Your task to perform on an android device: Is it going to rain tomorrow? Image 0: 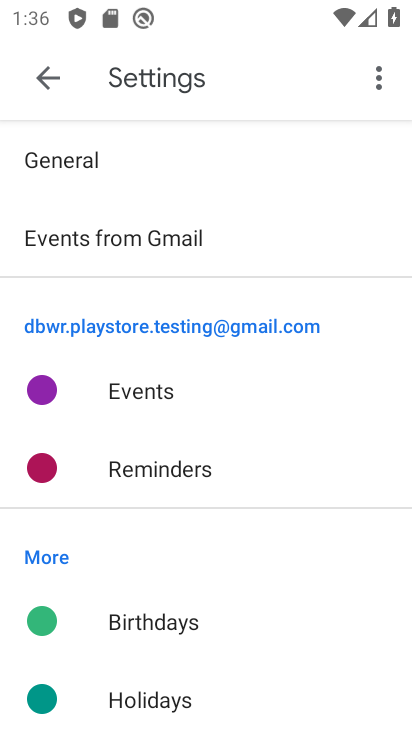
Step 0: press home button
Your task to perform on an android device: Is it going to rain tomorrow? Image 1: 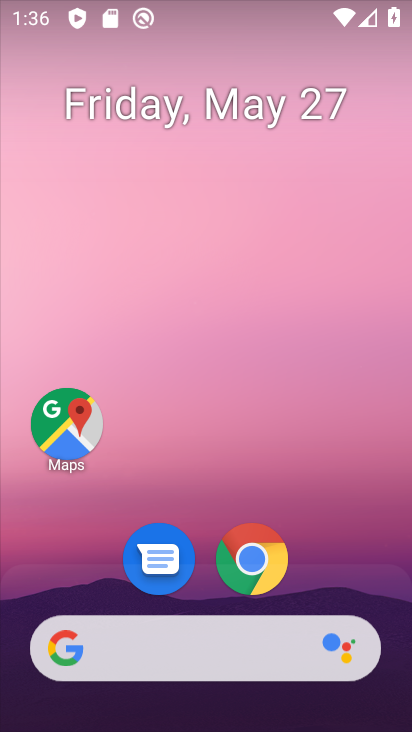
Step 1: drag from (59, 286) to (409, 251)
Your task to perform on an android device: Is it going to rain tomorrow? Image 2: 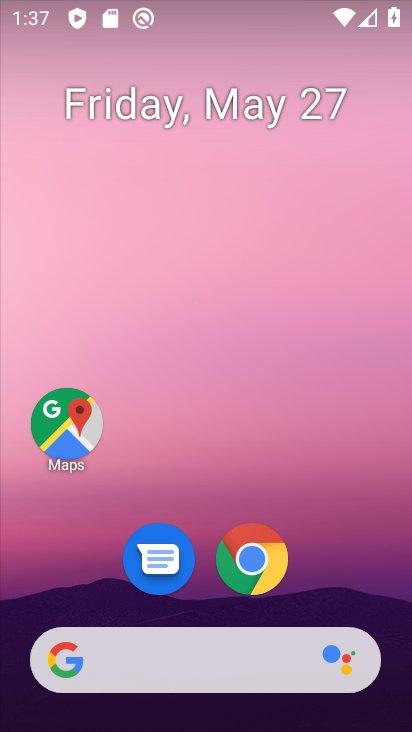
Step 2: click (167, 672)
Your task to perform on an android device: Is it going to rain tomorrow? Image 3: 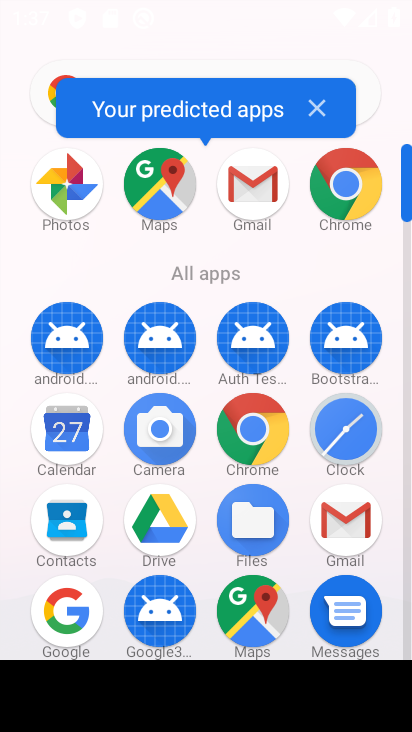
Step 3: click (60, 615)
Your task to perform on an android device: Is it going to rain tomorrow? Image 4: 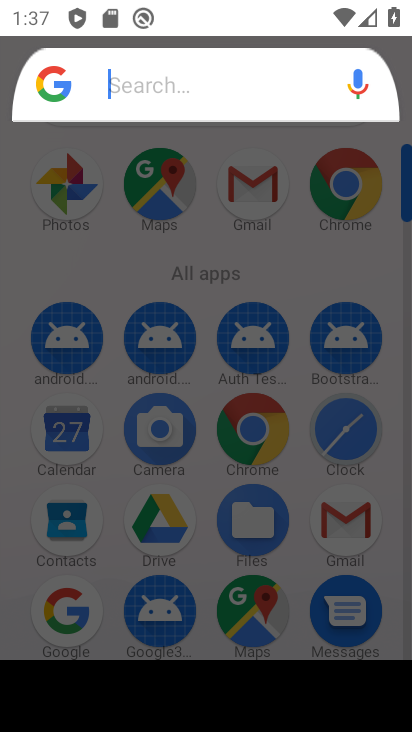
Step 4: click (72, 609)
Your task to perform on an android device: Is it going to rain tomorrow? Image 5: 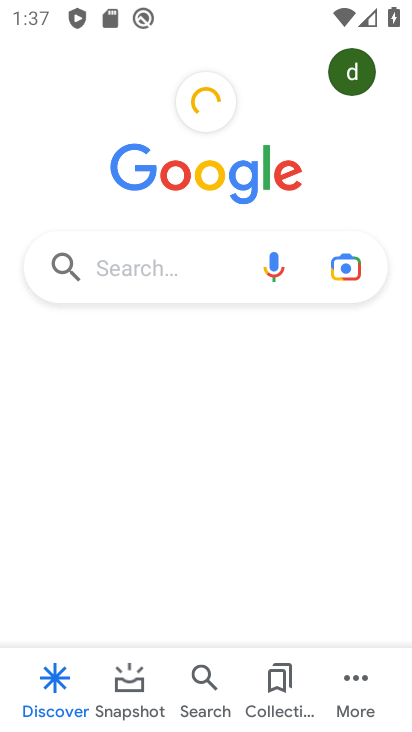
Step 5: click (144, 276)
Your task to perform on an android device: Is it going to rain tomorrow? Image 6: 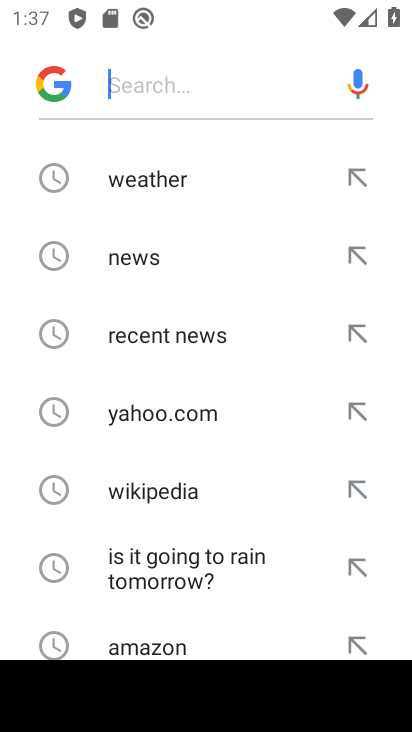
Step 6: click (165, 181)
Your task to perform on an android device: Is it going to rain tomorrow? Image 7: 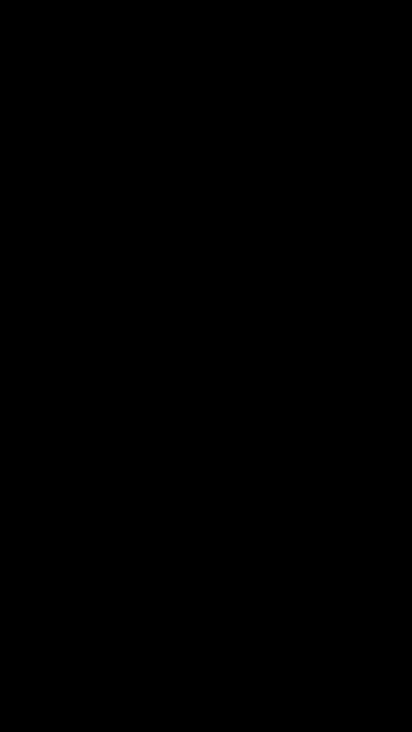
Step 7: drag from (234, 483) to (290, 386)
Your task to perform on an android device: Is it going to rain tomorrow? Image 8: 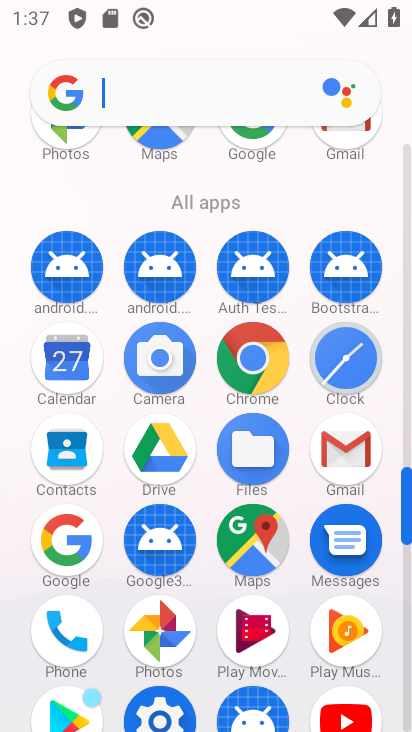
Step 8: click (72, 546)
Your task to perform on an android device: Is it going to rain tomorrow? Image 9: 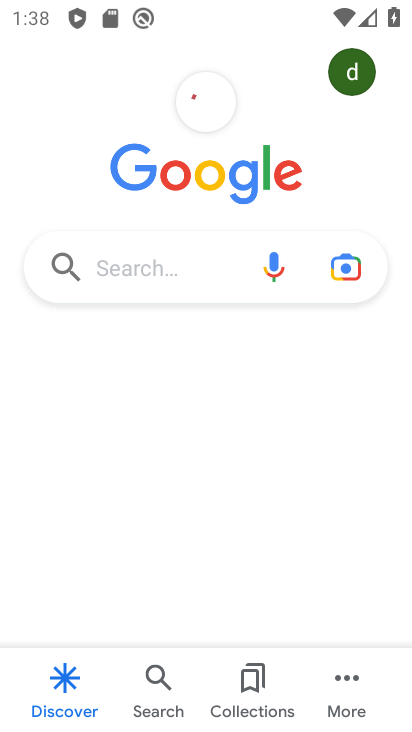
Step 9: click (183, 277)
Your task to perform on an android device: Is it going to rain tomorrow? Image 10: 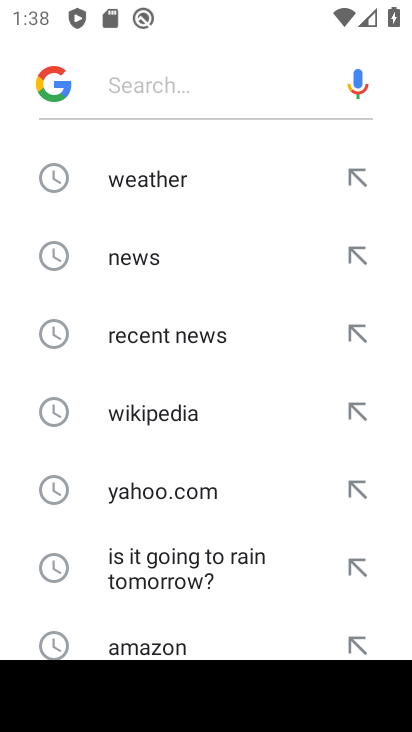
Step 10: click (204, 190)
Your task to perform on an android device: Is it going to rain tomorrow? Image 11: 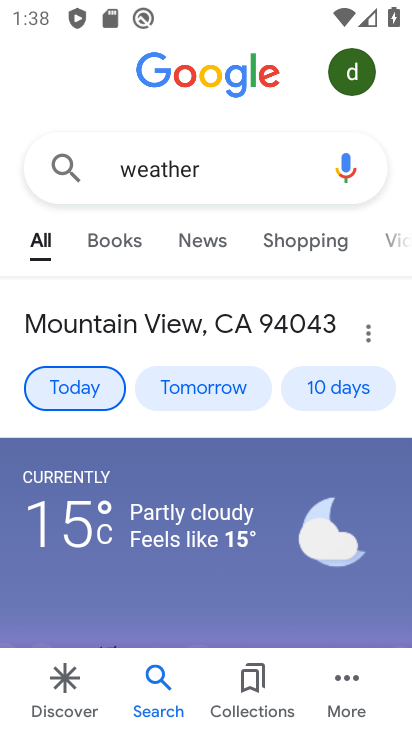
Step 11: drag from (193, 558) to (358, 261)
Your task to perform on an android device: Is it going to rain tomorrow? Image 12: 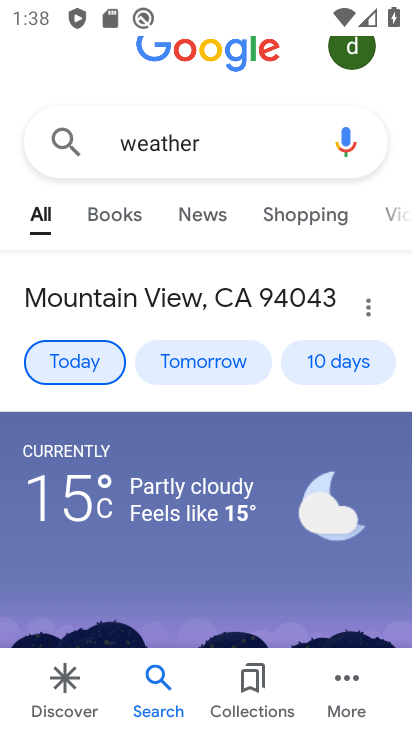
Step 12: drag from (228, 537) to (340, 135)
Your task to perform on an android device: Is it going to rain tomorrow? Image 13: 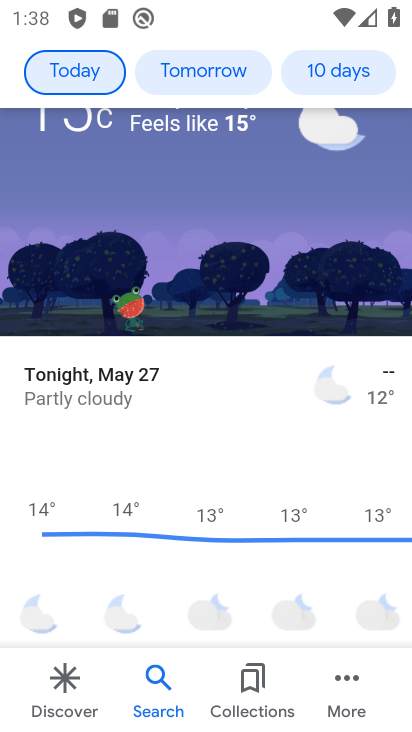
Step 13: drag from (205, 481) to (267, 514)
Your task to perform on an android device: Is it going to rain tomorrow? Image 14: 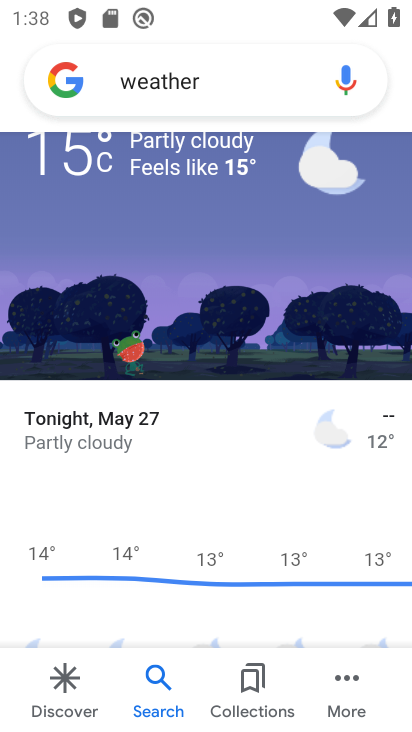
Step 14: drag from (204, 523) to (328, 161)
Your task to perform on an android device: Is it going to rain tomorrow? Image 15: 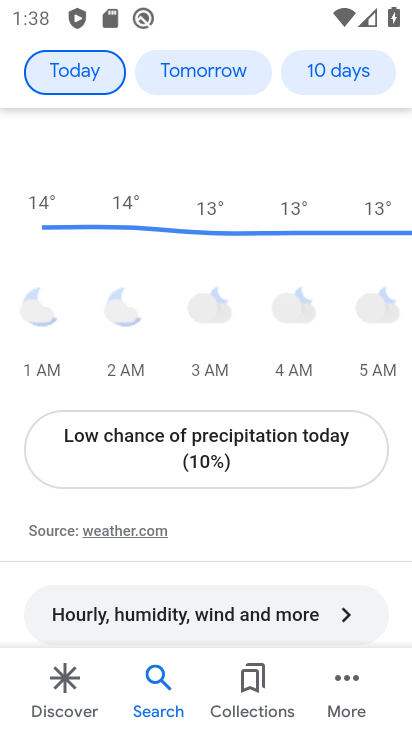
Step 15: click (186, 452)
Your task to perform on an android device: Is it going to rain tomorrow? Image 16: 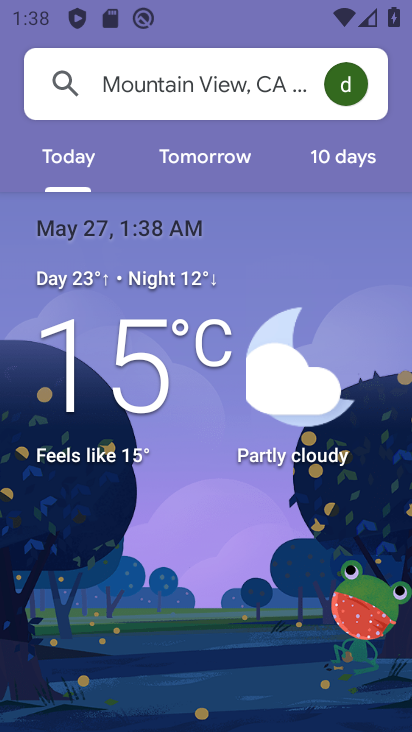
Step 16: click (209, 159)
Your task to perform on an android device: Is it going to rain tomorrow? Image 17: 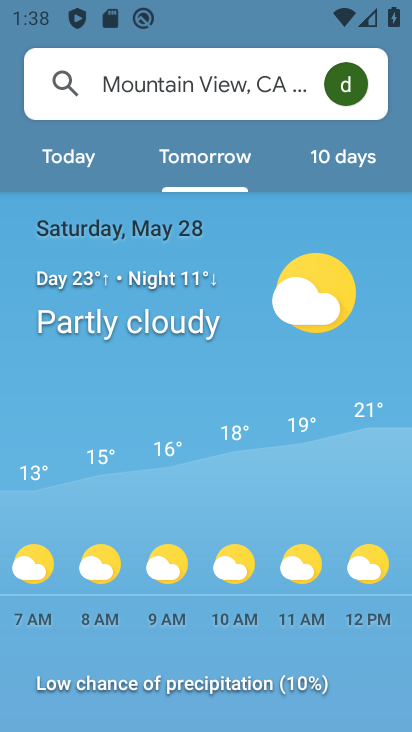
Step 17: task complete